Your task to perform on an android device: open app "Firefox Browser" (install if not already installed) and go to login screen Image 0: 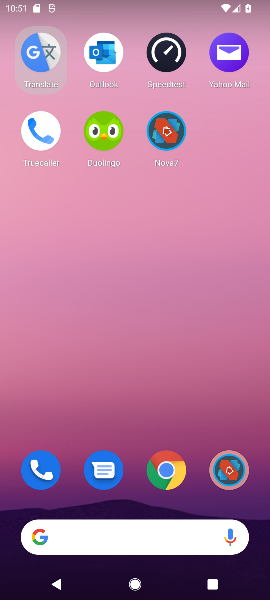
Step 0: drag from (139, 546) to (260, 10)
Your task to perform on an android device: open app "Firefox Browser" (install if not already installed) and go to login screen Image 1: 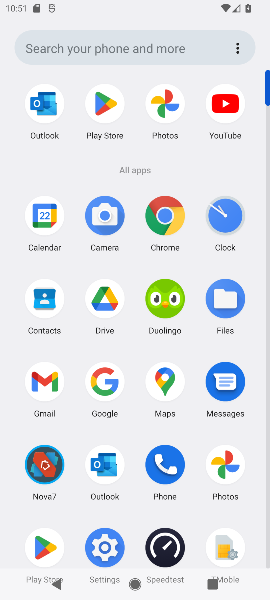
Step 1: click (52, 543)
Your task to perform on an android device: open app "Firefox Browser" (install if not already installed) and go to login screen Image 2: 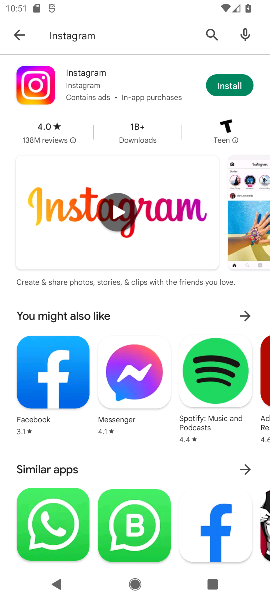
Step 2: press back button
Your task to perform on an android device: open app "Firefox Browser" (install if not already installed) and go to login screen Image 3: 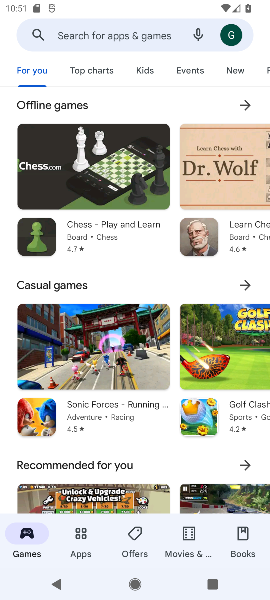
Step 3: click (86, 27)
Your task to perform on an android device: open app "Firefox Browser" (install if not already installed) and go to login screen Image 4: 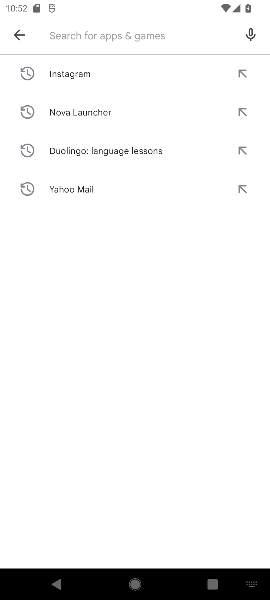
Step 4: type "Firefox Browser"
Your task to perform on an android device: open app "Firefox Browser" (install if not already installed) and go to login screen Image 5: 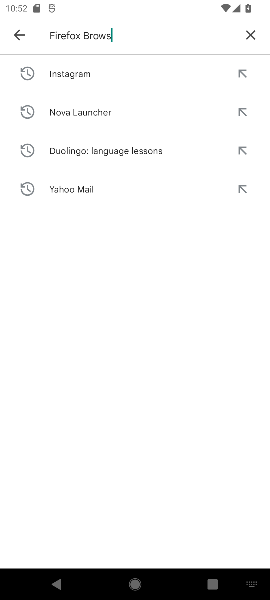
Step 5: press enter
Your task to perform on an android device: open app "Firefox Browser" (install if not already installed) and go to login screen Image 6: 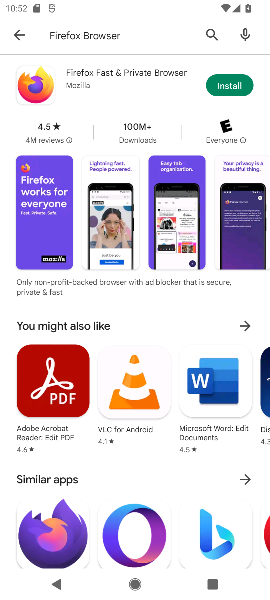
Step 6: click (237, 85)
Your task to perform on an android device: open app "Firefox Browser" (install if not already installed) and go to login screen Image 7: 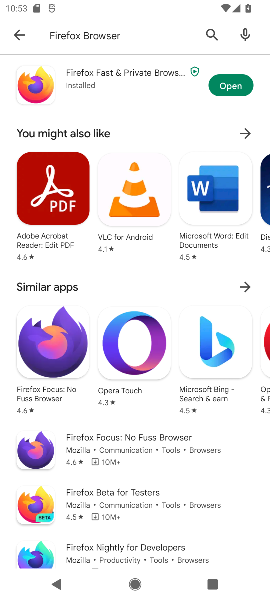
Step 7: click (240, 86)
Your task to perform on an android device: open app "Firefox Browser" (install if not already installed) and go to login screen Image 8: 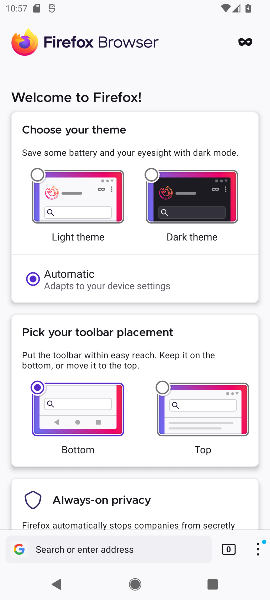
Step 8: task complete